Your task to perform on an android device: Open ESPN.com Image 0: 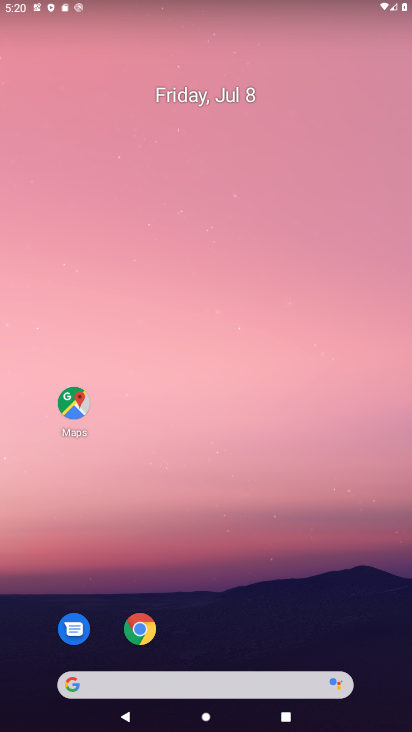
Step 0: press home button
Your task to perform on an android device: Open ESPN.com Image 1: 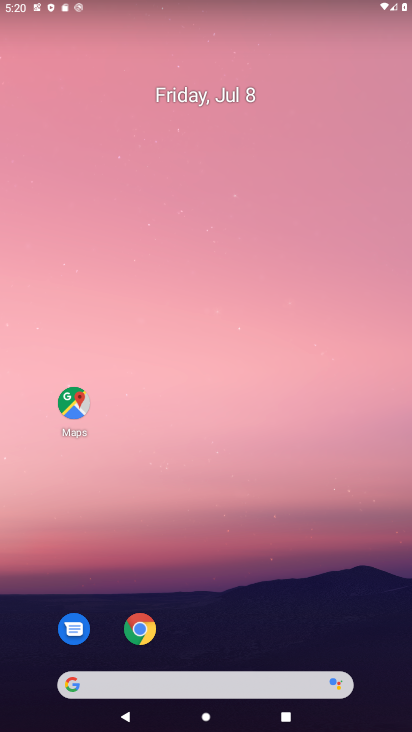
Step 1: click (80, 702)
Your task to perform on an android device: Open ESPN.com Image 2: 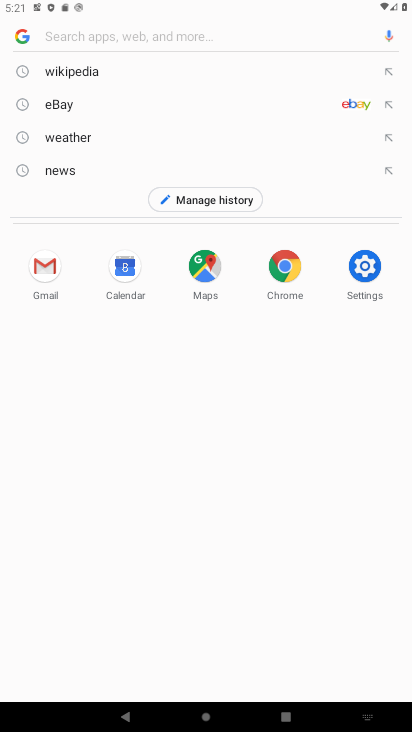
Step 2: type "ESPN.com"
Your task to perform on an android device: Open ESPN.com Image 3: 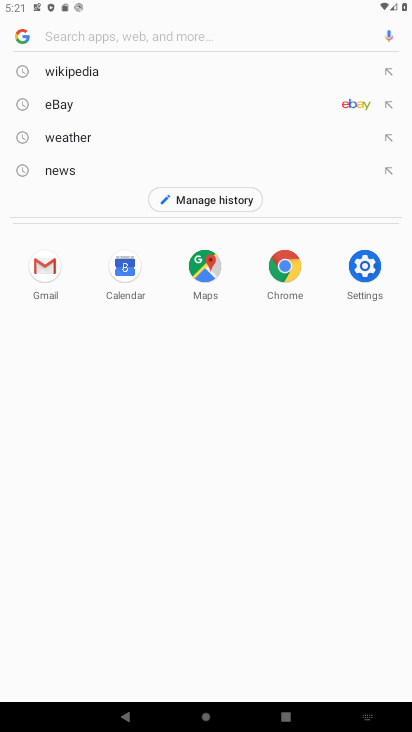
Step 3: click (138, 23)
Your task to perform on an android device: Open ESPN.com Image 4: 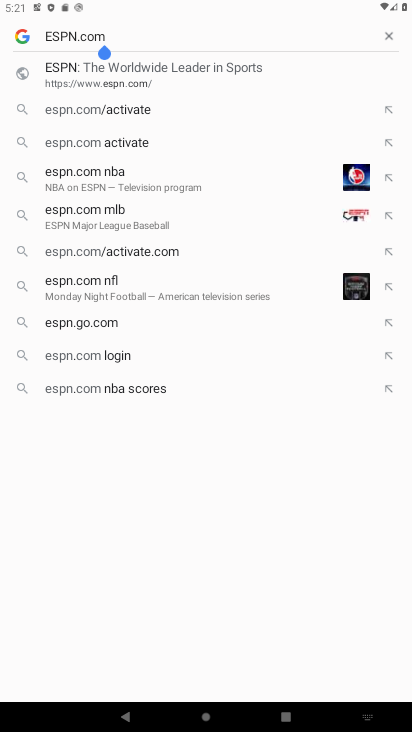
Step 4: click (108, 73)
Your task to perform on an android device: Open ESPN.com Image 5: 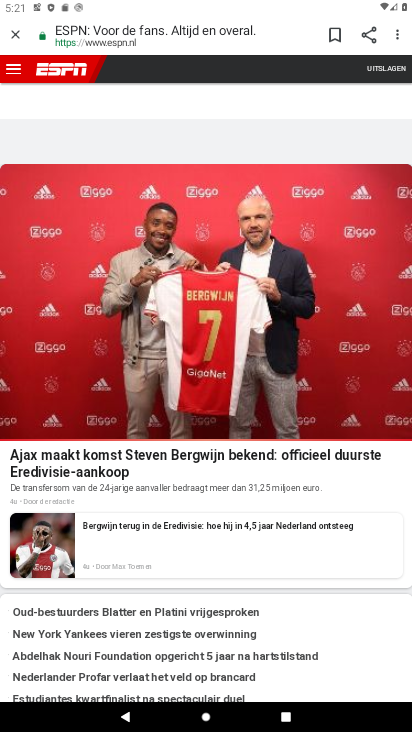
Step 5: task complete